Your task to perform on an android device: turn off sleep mode Image 0: 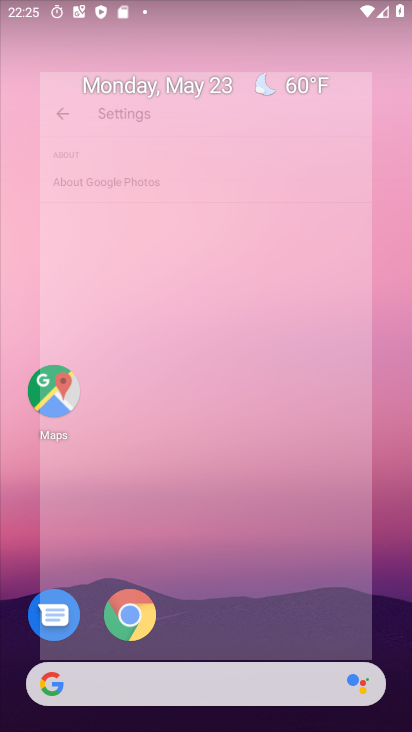
Step 0: drag from (250, 596) to (351, 40)
Your task to perform on an android device: turn off sleep mode Image 1: 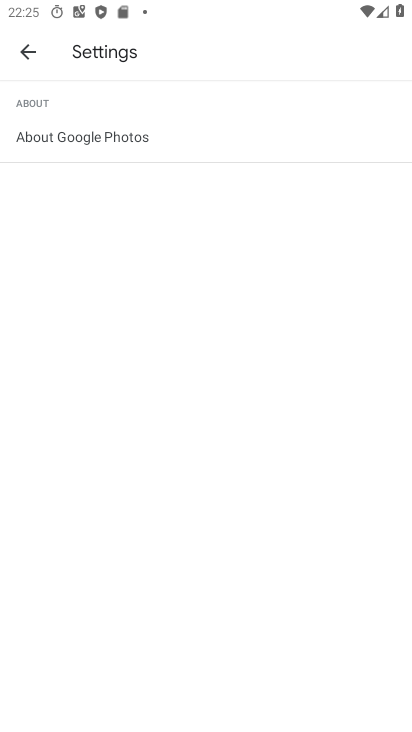
Step 1: press home button
Your task to perform on an android device: turn off sleep mode Image 2: 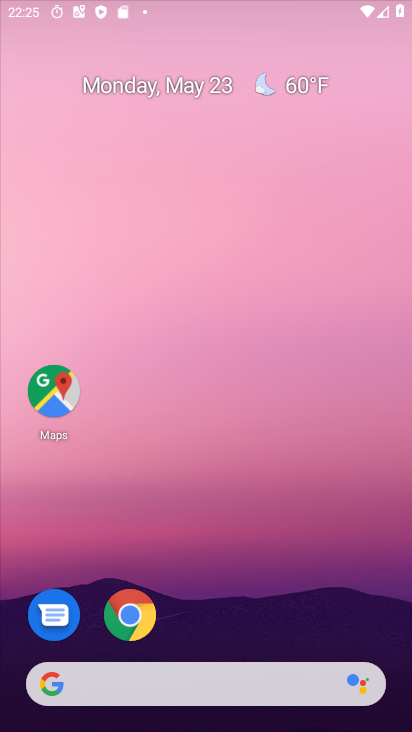
Step 2: drag from (250, 603) to (293, 152)
Your task to perform on an android device: turn off sleep mode Image 3: 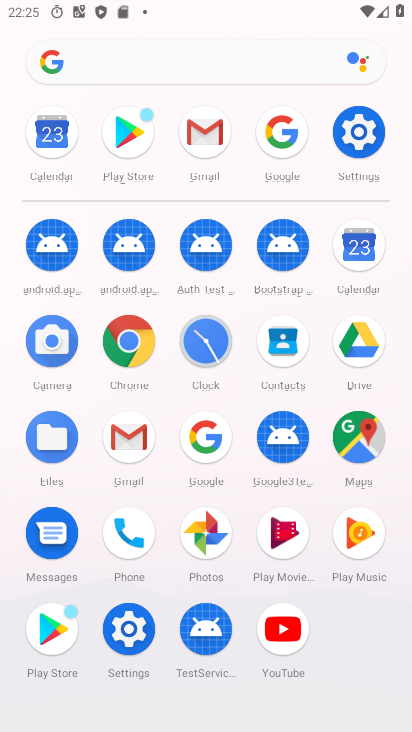
Step 3: click (356, 135)
Your task to perform on an android device: turn off sleep mode Image 4: 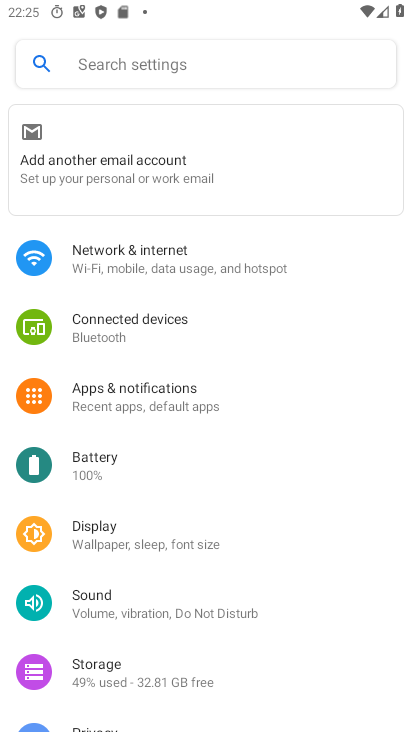
Step 4: click (144, 538)
Your task to perform on an android device: turn off sleep mode Image 5: 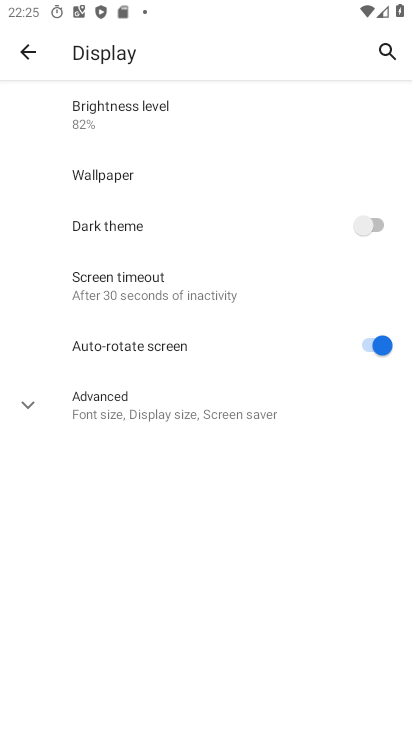
Step 5: click (145, 281)
Your task to perform on an android device: turn off sleep mode Image 6: 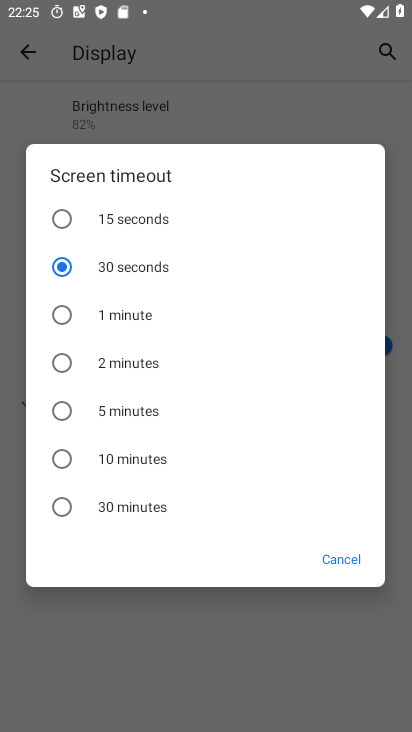
Step 6: task complete